Your task to perform on an android device: Open my contact list Image 0: 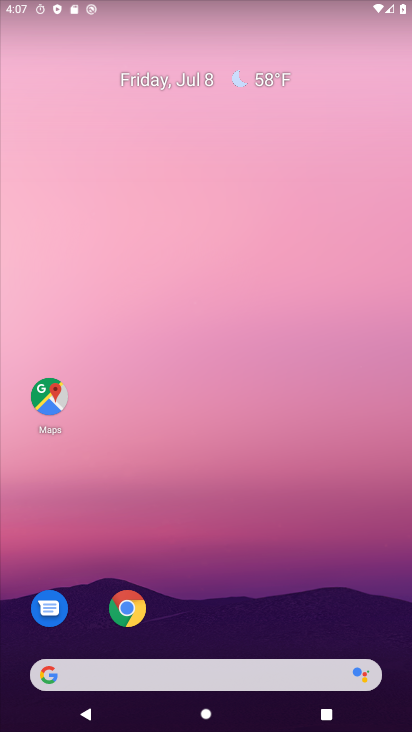
Step 0: drag from (262, 604) to (261, 219)
Your task to perform on an android device: Open my contact list Image 1: 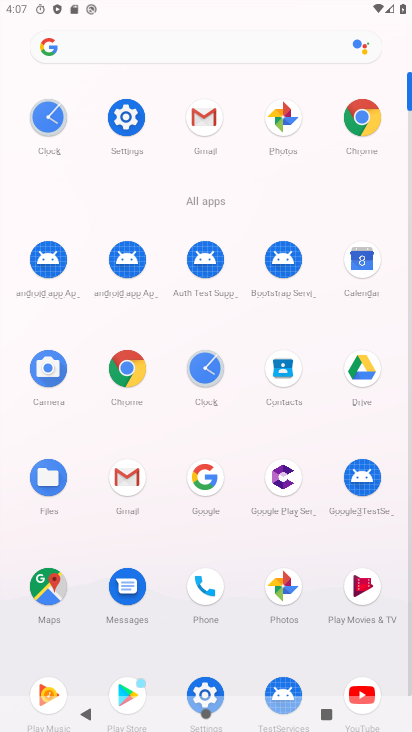
Step 1: click (277, 369)
Your task to perform on an android device: Open my contact list Image 2: 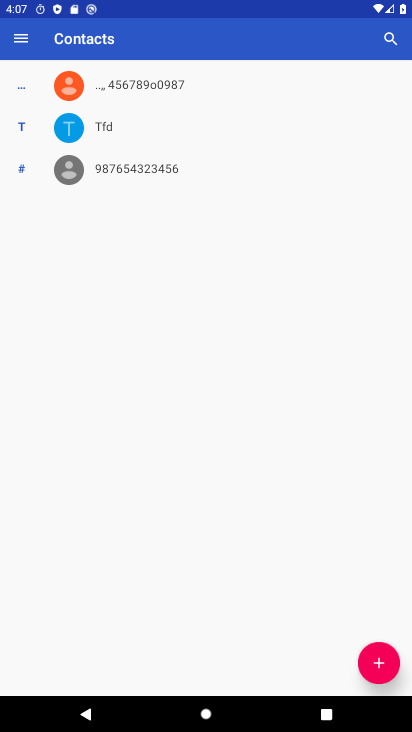
Step 2: task complete